Your task to perform on an android device: Go to wifi settings Image 0: 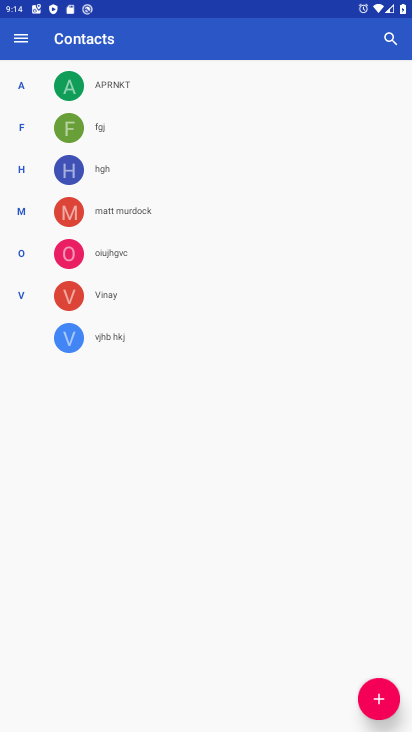
Step 0: press home button
Your task to perform on an android device: Go to wifi settings Image 1: 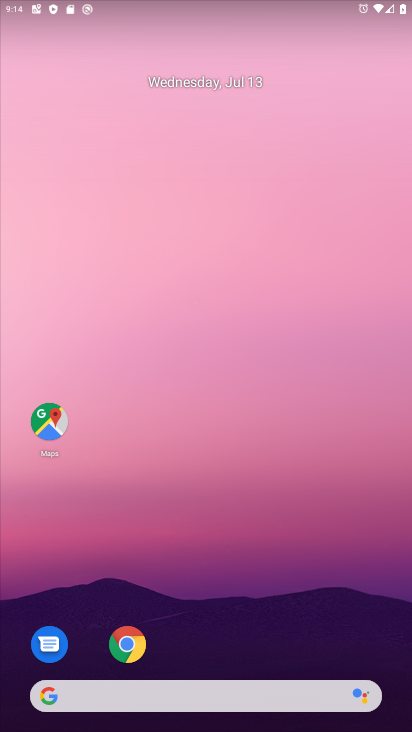
Step 1: drag from (236, 720) to (250, 195)
Your task to perform on an android device: Go to wifi settings Image 2: 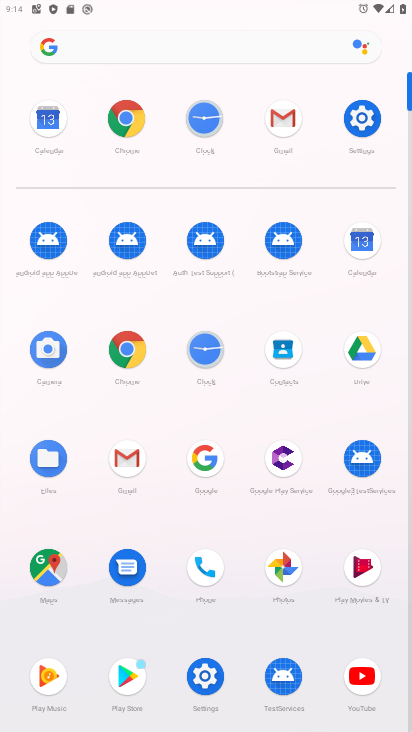
Step 2: click (368, 110)
Your task to perform on an android device: Go to wifi settings Image 3: 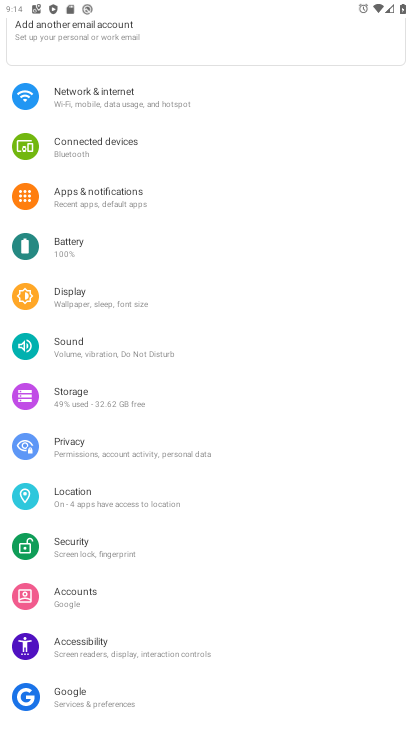
Step 3: click (72, 98)
Your task to perform on an android device: Go to wifi settings Image 4: 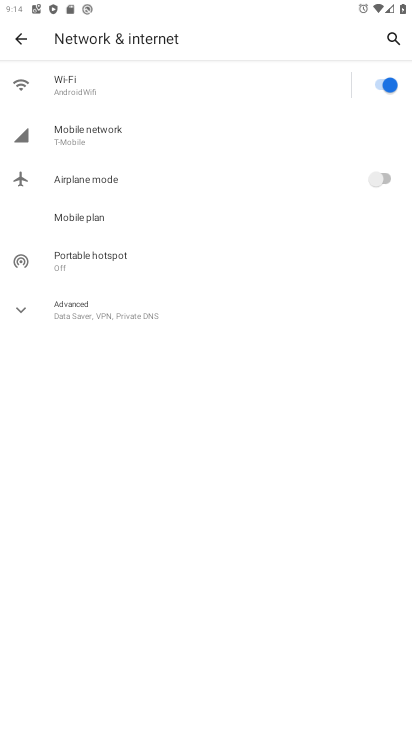
Step 4: click (76, 79)
Your task to perform on an android device: Go to wifi settings Image 5: 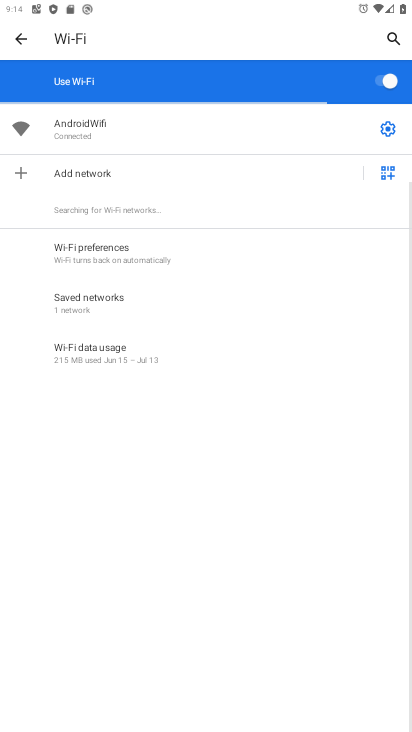
Step 5: task complete